Your task to perform on an android device: open wifi settings Image 0: 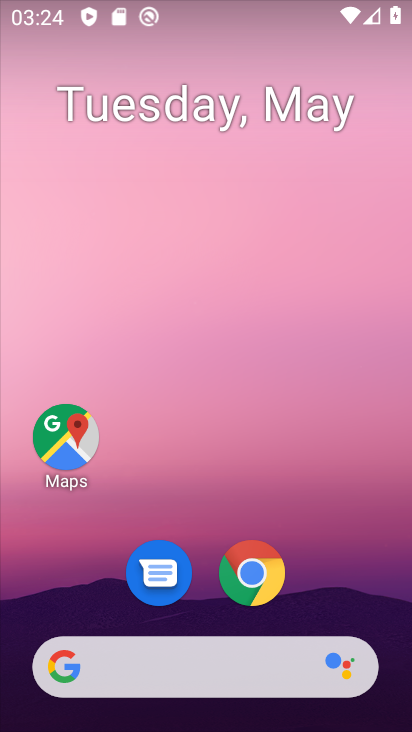
Step 0: drag from (152, 7) to (155, 452)
Your task to perform on an android device: open wifi settings Image 1: 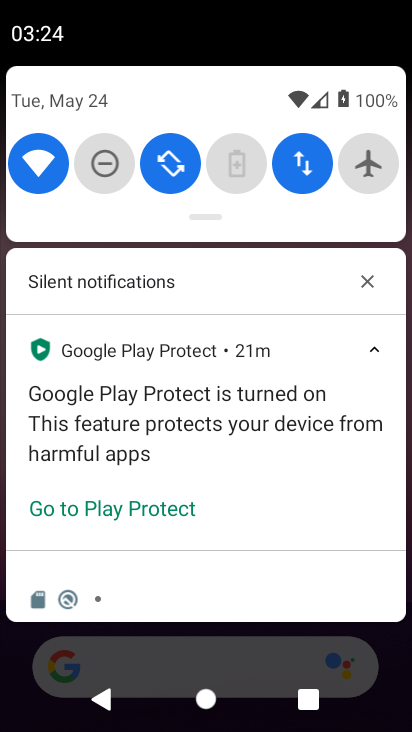
Step 1: click (46, 162)
Your task to perform on an android device: open wifi settings Image 2: 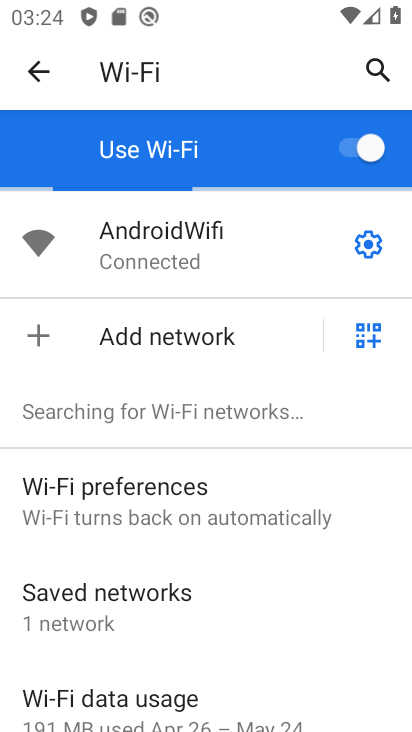
Step 2: task complete